Your task to perform on an android device: turn pop-ups off in chrome Image 0: 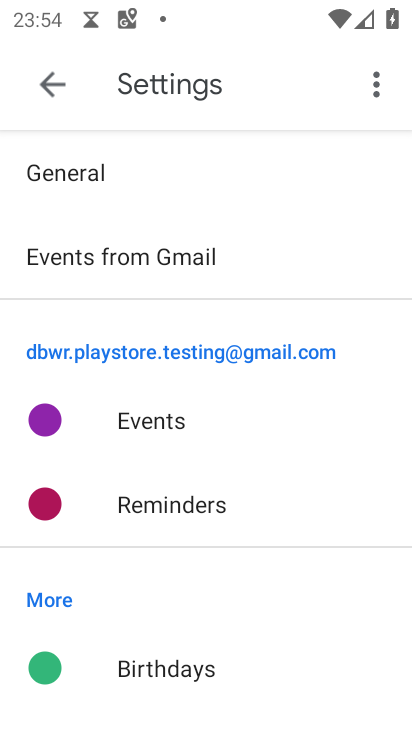
Step 0: press home button
Your task to perform on an android device: turn pop-ups off in chrome Image 1: 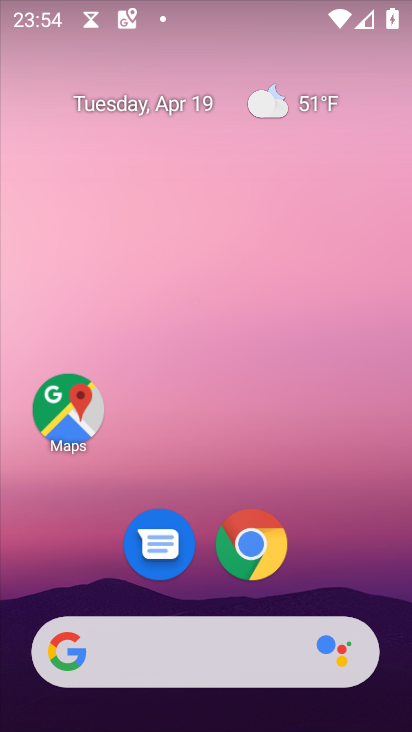
Step 1: drag from (320, 591) to (395, 25)
Your task to perform on an android device: turn pop-ups off in chrome Image 2: 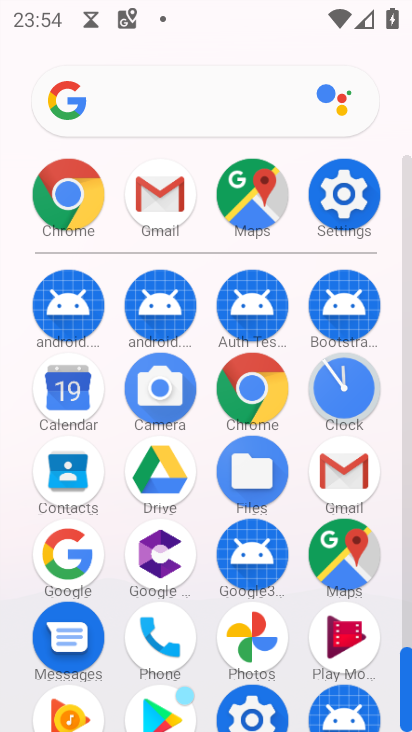
Step 2: click (54, 202)
Your task to perform on an android device: turn pop-ups off in chrome Image 3: 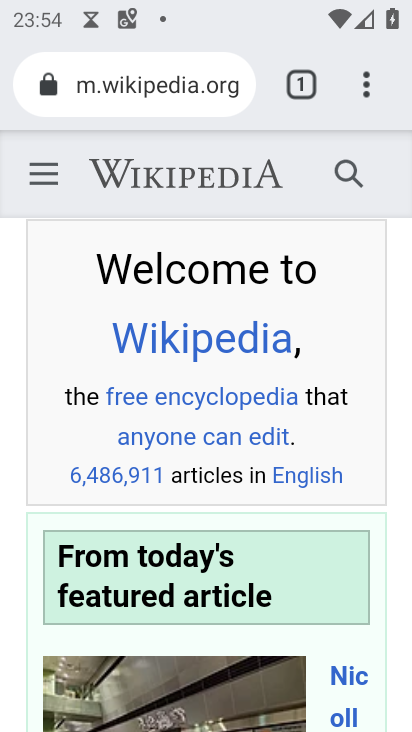
Step 3: click (370, 83)
Your task to perform on an android device: turn pop-ups off in chrome Image 4: 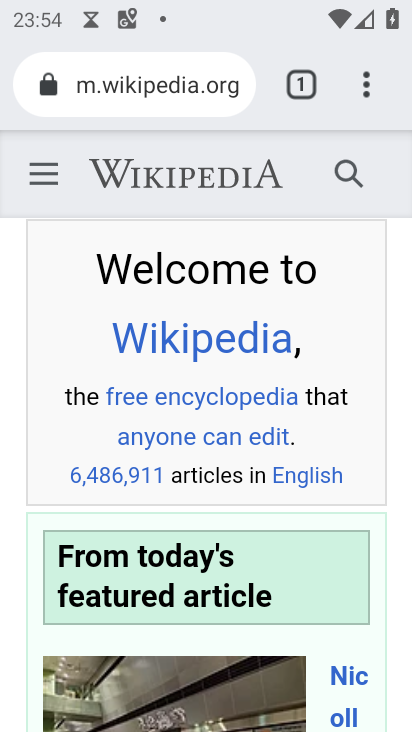
Step 4: click (366, 78)
Your task to perform on an android device: turn pop-ups off in chrome Image 5: 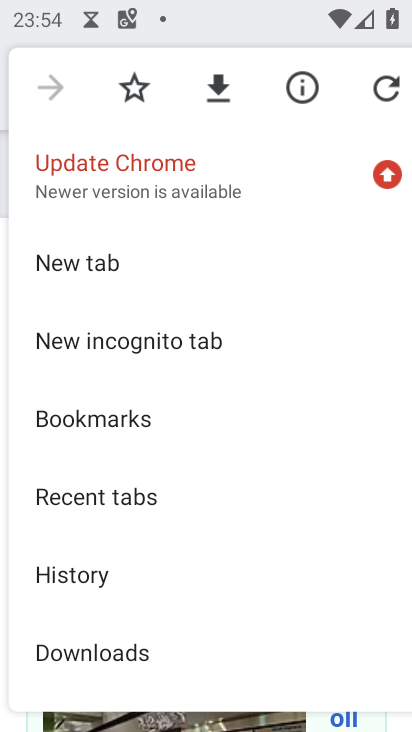
Step 5: drag from (118, 624) to (180, 399)
Your task to perform on an android device: turn pop-ups off in chrome Image 6: 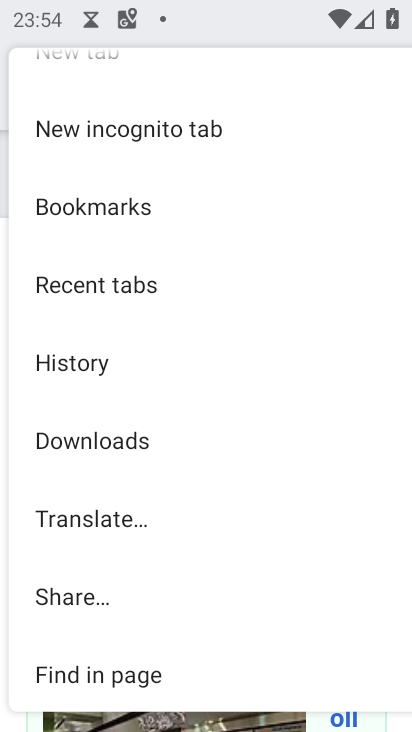
Step 6: drag from (151, 596) to (204, 406)
Your task to perform on an android device: turn pop-ups off in chrome Image 7: 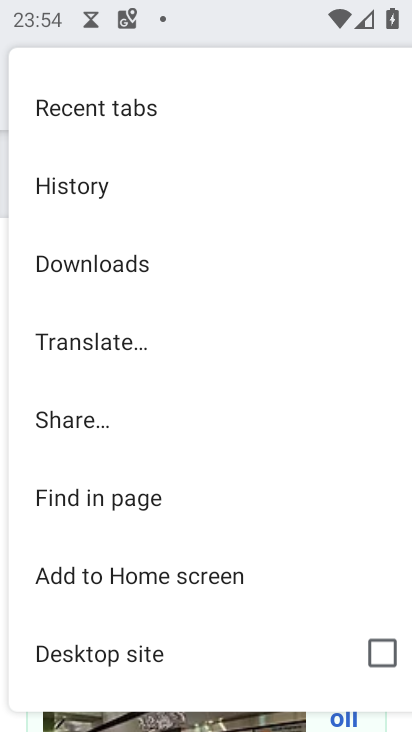
Step 7: drag from (185, 607) to (200, 507)
Your task to perform on an android device: turn pop-ups off in chrome Image 8: 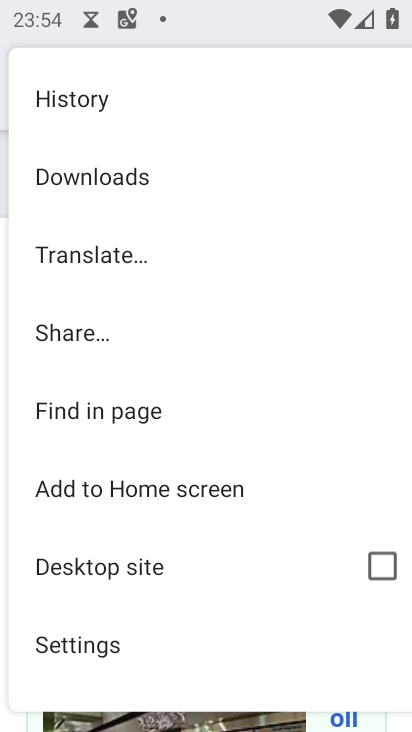
Step 8: click (148, 631)
Your task to perform on an android device: turn pop-ups off in chrome Image 9: 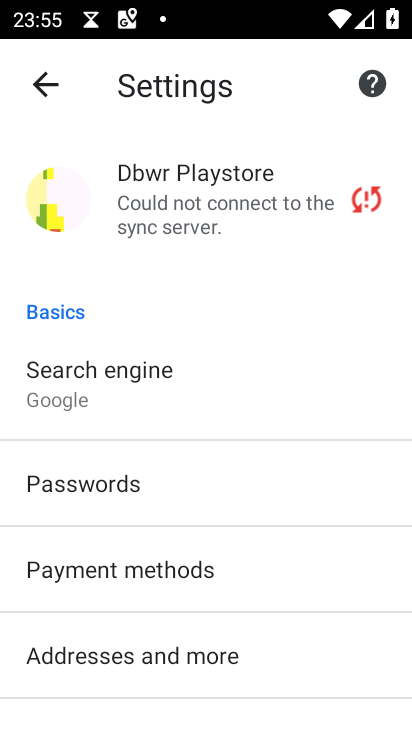
Step 9: drag from (153, 651) to (176, 563)
Your task to perform on an android device: turn pop-ups off in chrome Image 10: 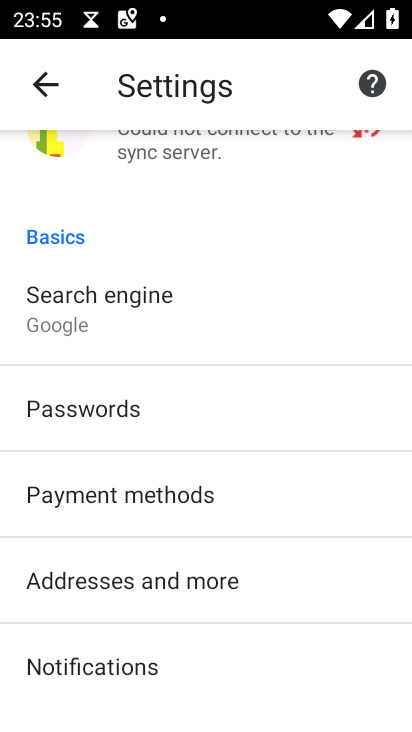
Step 10: drag from (177, 645) to (170, 543)
Your task to perform on an android device: turn pop-ups off in chrome Image 11: 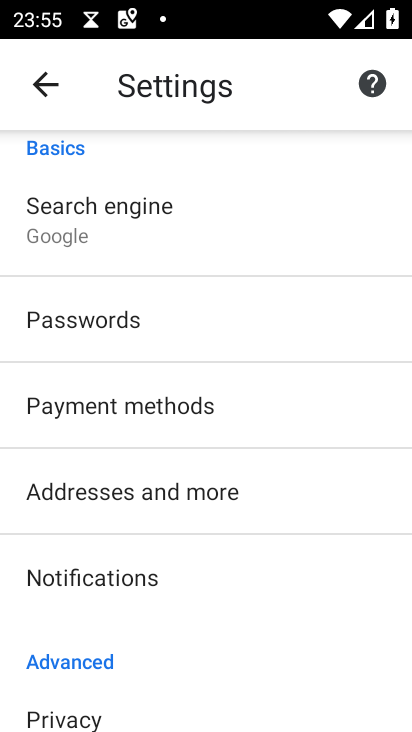
Step 11: drag from (161, 628) to (172, 532)
Your task to perform on an android device: turn pop-ups off in chrome Image 12: 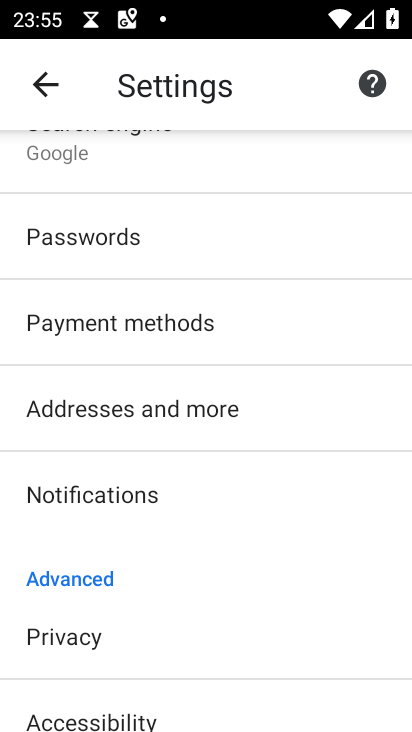
Step 12: drag from (164, 653) to (209, 541)
Your task to perform on an android device: turn pop-ups off in chrome Image 13: 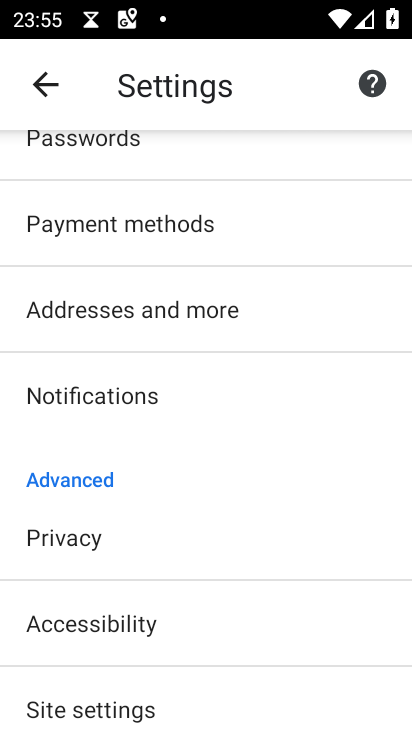
Step 13: drag from (191, 650) to (214, 566)
Your task to perform on an android device: turn pop-ups off in chrome Image 14: 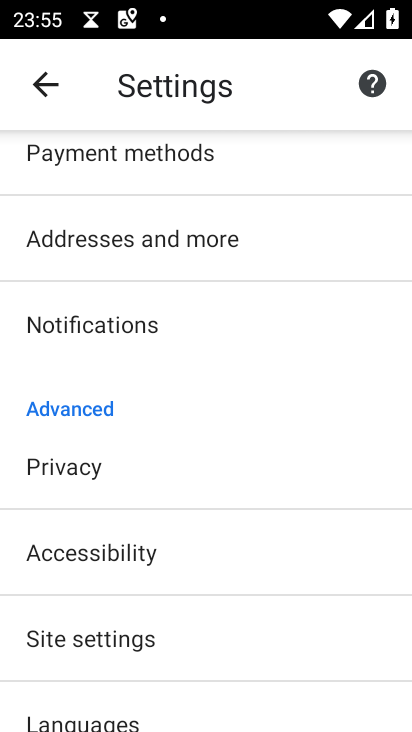
Step 14: drag from (194, 657) to (191, 586)
Your task to perform on an android device: turn pop-ups off in chrome Image 15: 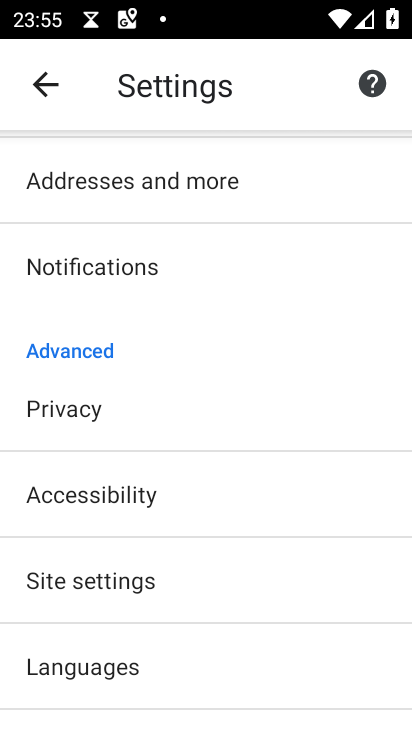
Step 15: click (173, 601)
Your task to perform on an android device: turn pop-ups off in chrome Image 16: 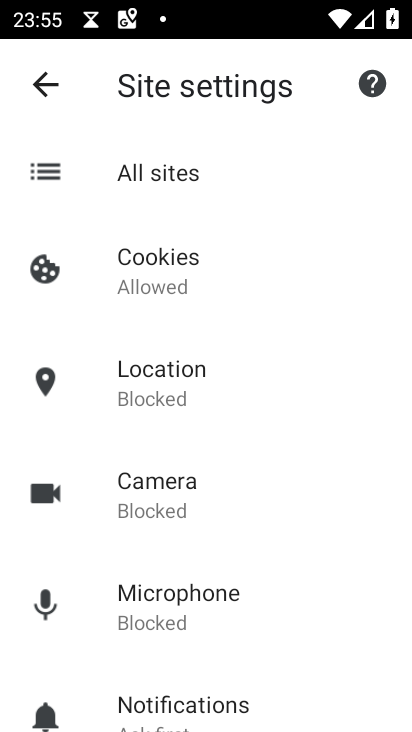
Step 16: drag from (186, 644) to (214, 562)
Your task to perform on an android device: turn pop-ups off in chrome Image 17: 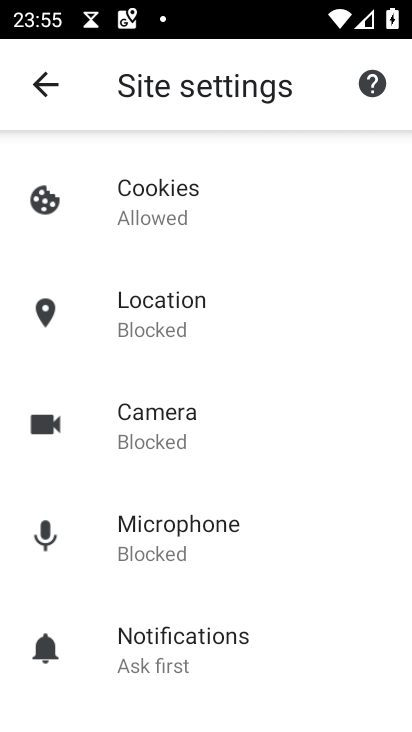
Step 17: drag from (204, 645) to (201, 566)
Your task to perform on an android device: turn pop-ups off in chrome Image 18: 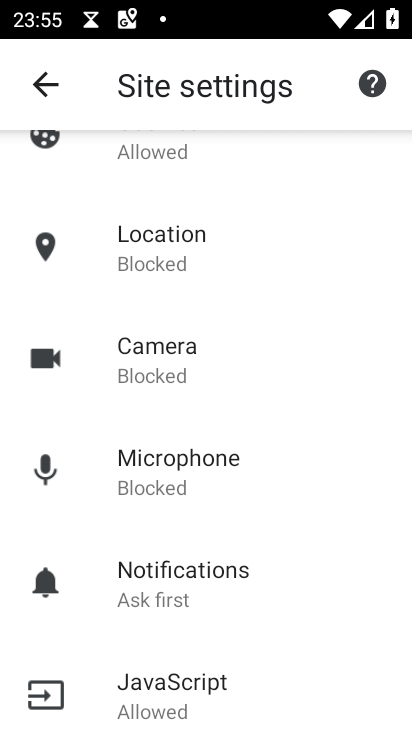
Step 18: drag from (202, 656) to (231, 546)
Your task to perform on an android device: turn pop-ups off in chrome Image 19: 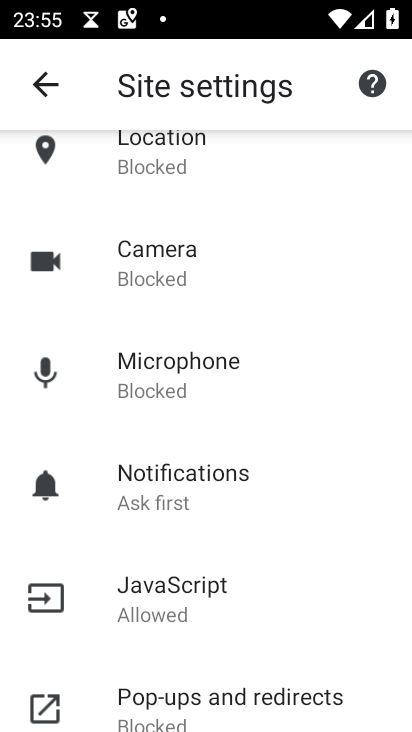
Step 19: drag from (211, 658) to (237, 563)
Your task to perform on an android device: turn pop-ups off in chrome Image 20: 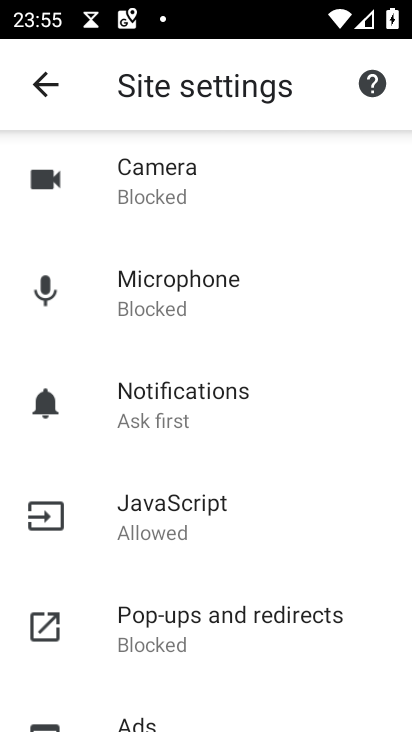
Step 20: click (209, 638)
Your task to perform on an android device: turn pop-ups off in chrome Image 21: 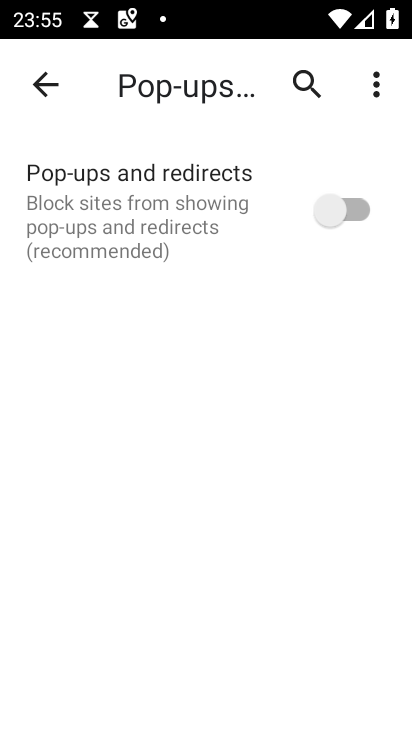
Step 21: task complete